Your task to perform on an android device: turn on wifi Image 0: 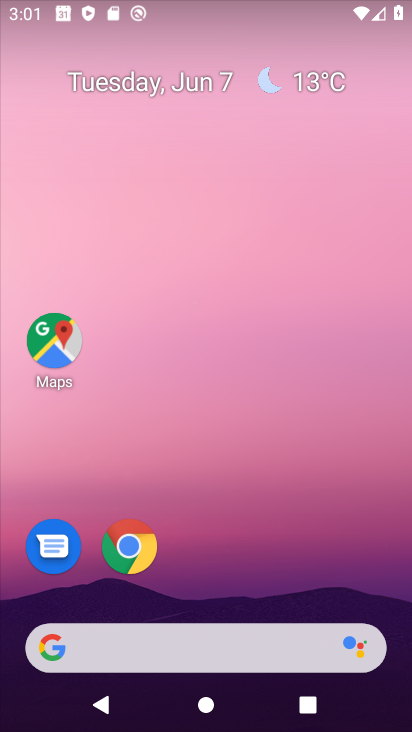
Step 0: drag from (195, 600) to (267, 71)
Your task to perform on an android device: turn on wifi Image 1: 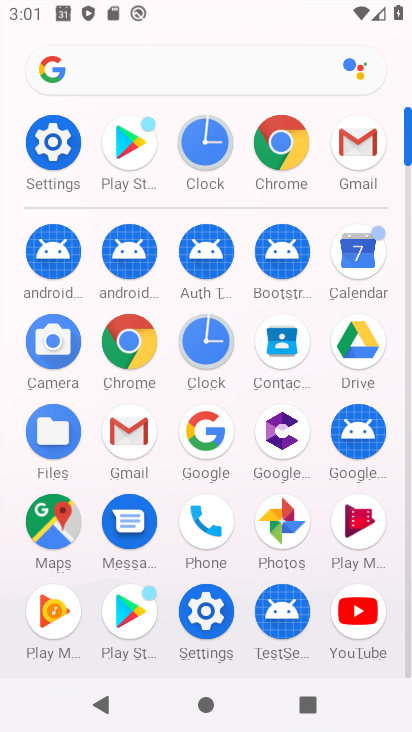
Step 1: click (59, 135)
Your task to perform on an android device: turn on wifi Image 2: 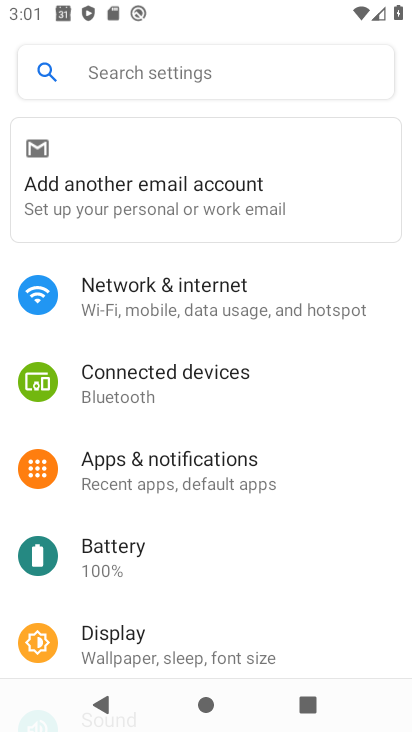
Step 2: click (131, 268)
Your task to perform on an android device: turn on wifi Image 3: 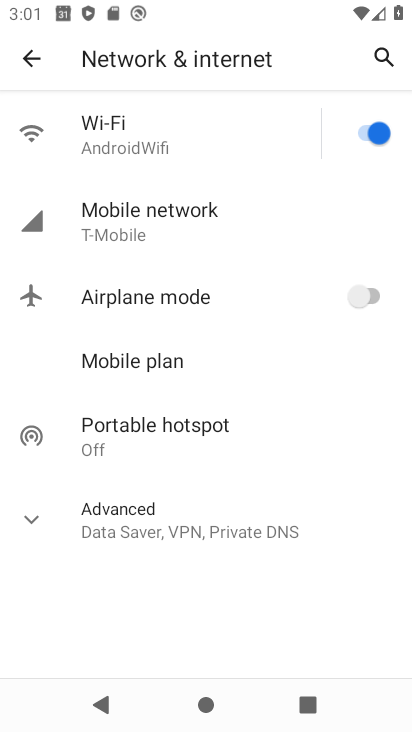
Step 3: task complete